Your task to perform on an android device: turn off wifi Image 0: 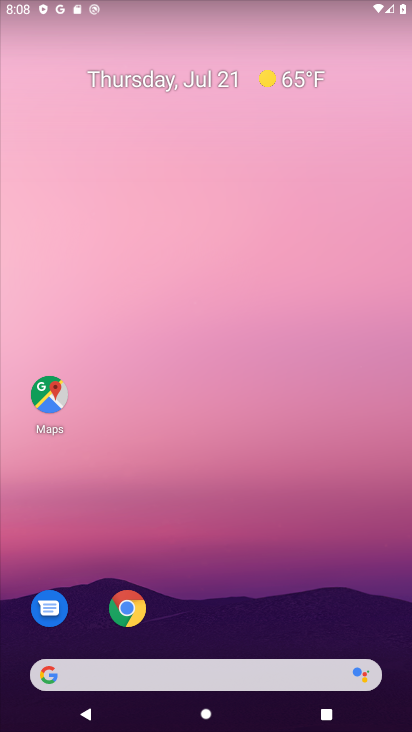
Step 0: drag from (310, 3) to (310, 272)
Your task to perform on an android device: turn off wifi Image 1: 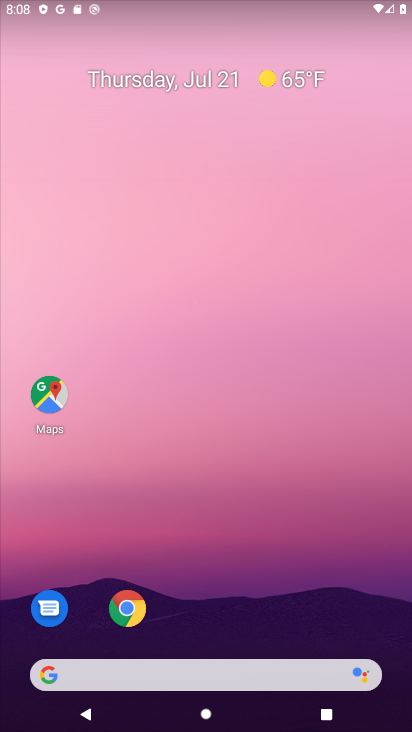
Step 1: drag from (200, 3) to (168, 430)
Your task to perform on an android device: turn off wifi Image 2: 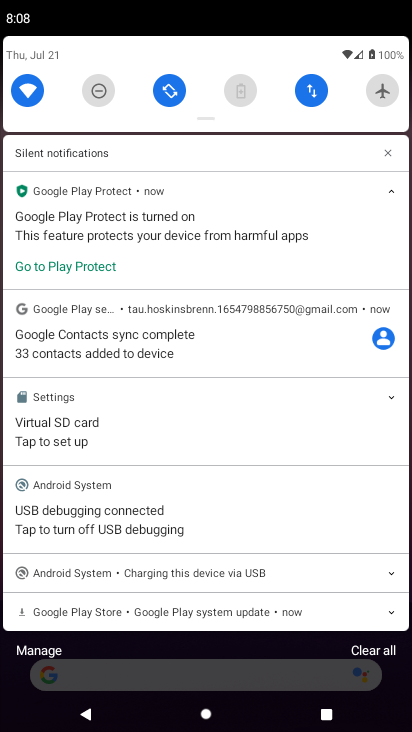
Step 2: click (30, 82)
Your task to perform on an android device: turn off wifi Image 3: 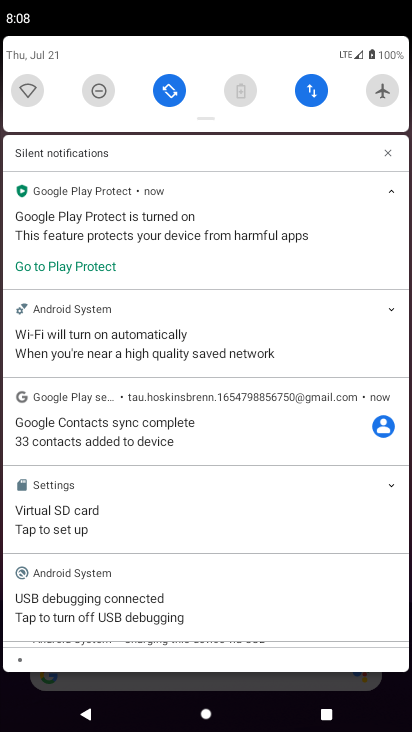
Step 3: task complete